Your task to perform on an android device: turn on javascript in the chrome app Image 0: 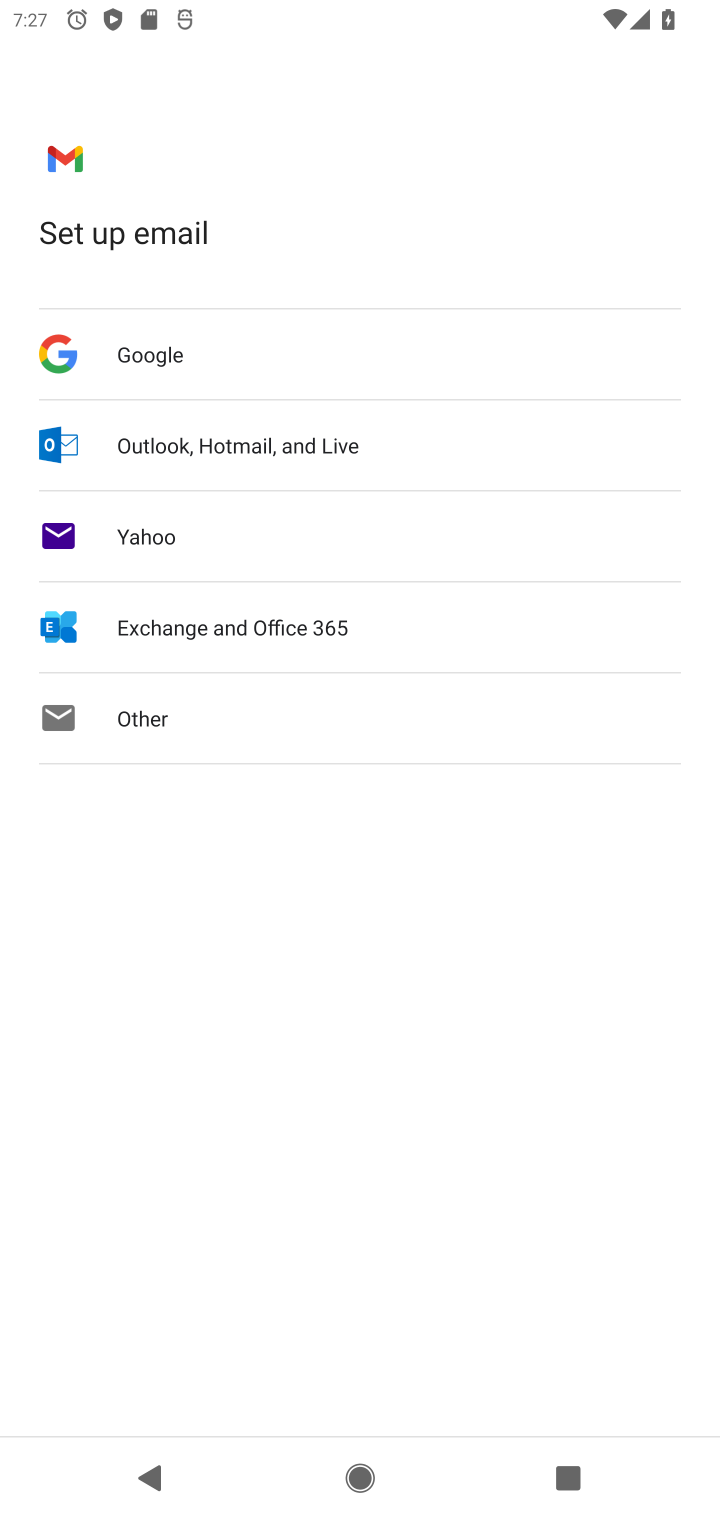
Step 0: press home button
Your task to perform on an android device: turn on javascript in the chrome app Image 1: 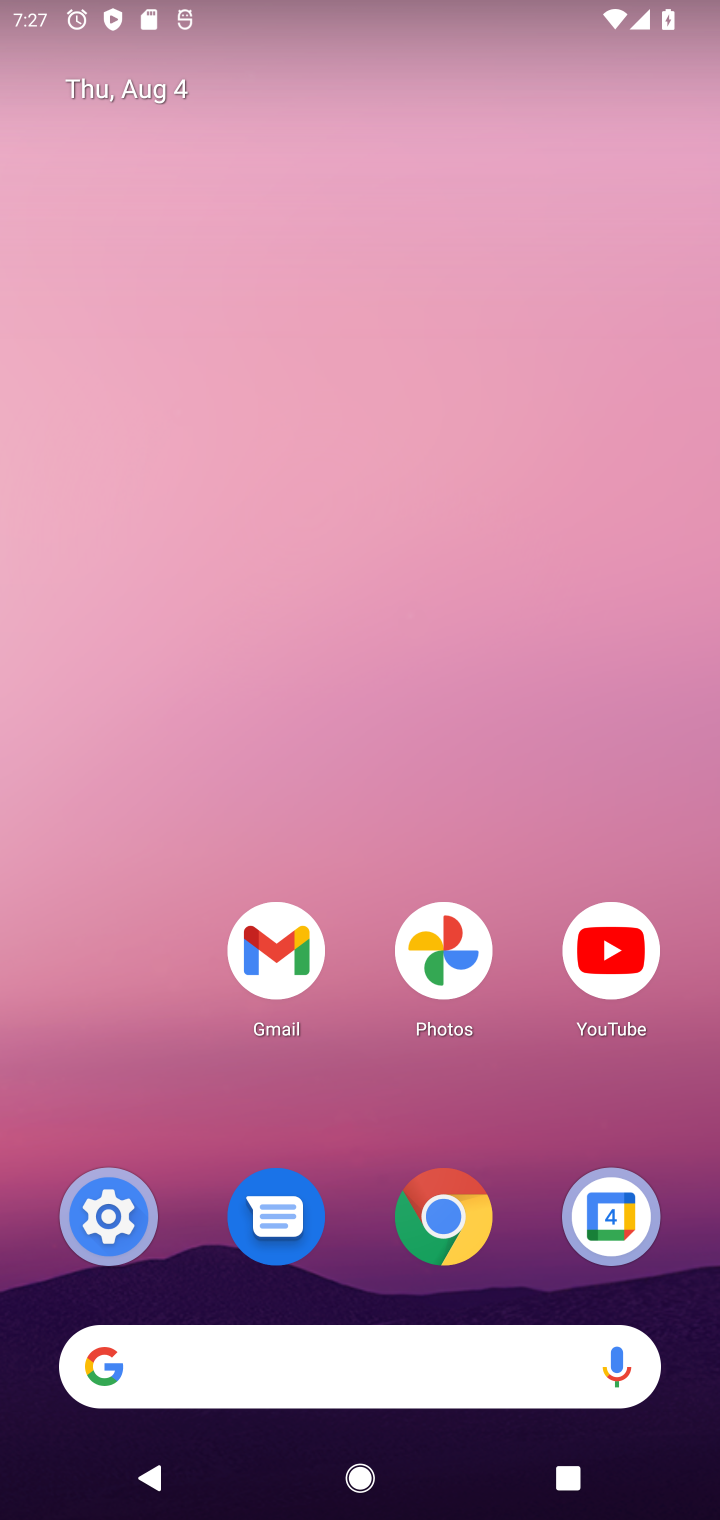
Step 1: click (459, 1205)
Your task to perform on an android device: turn on javascript in the chrome app Image 2: 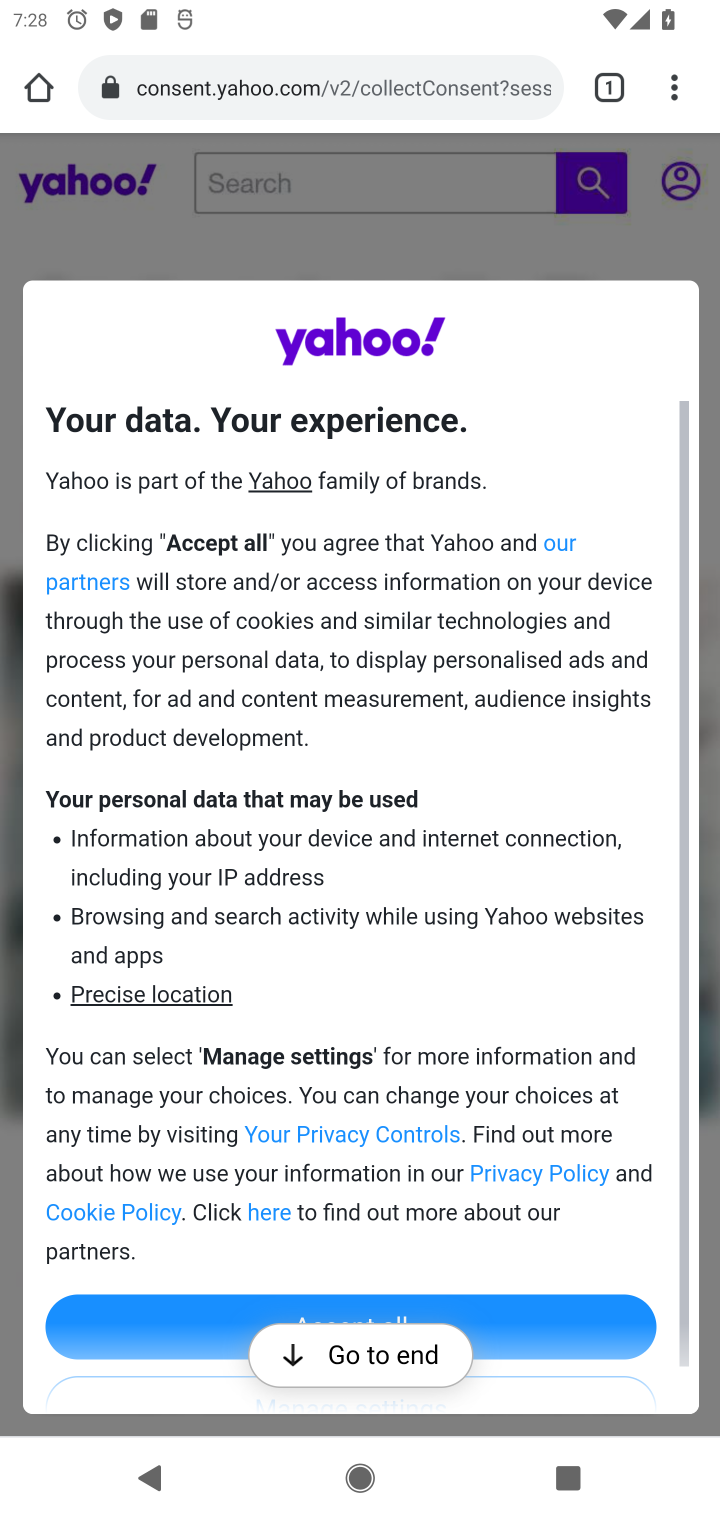
Step 2: press home button
Your task to perform on an android device: turn on javascript in the chrome app Image 3: 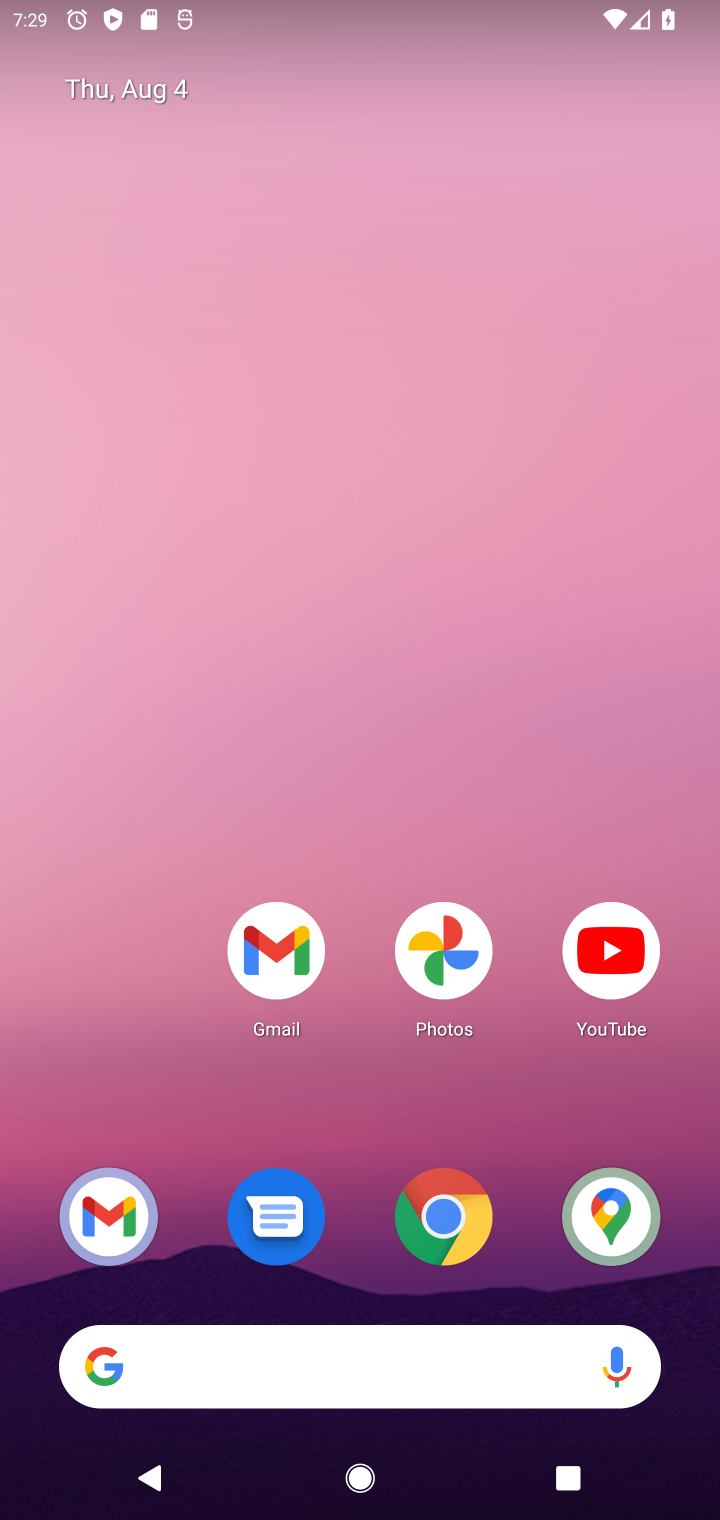
Step 3: click (449, 1205)
Your task to perform on an android device: turn on javascript in the chrome app Image 4: 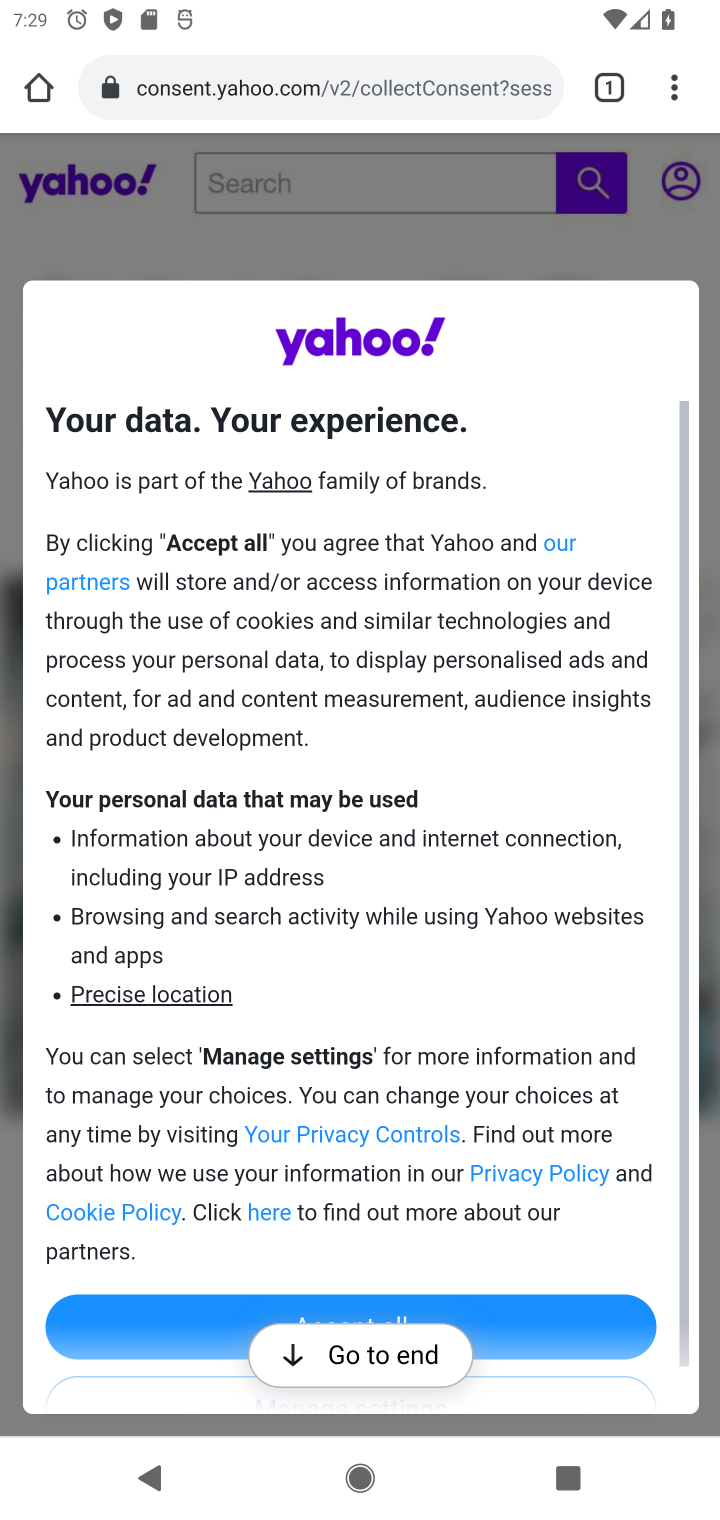
Step 4: press home button
Your task to perform on an android device: turn on javascript in the chrome app Image 5: 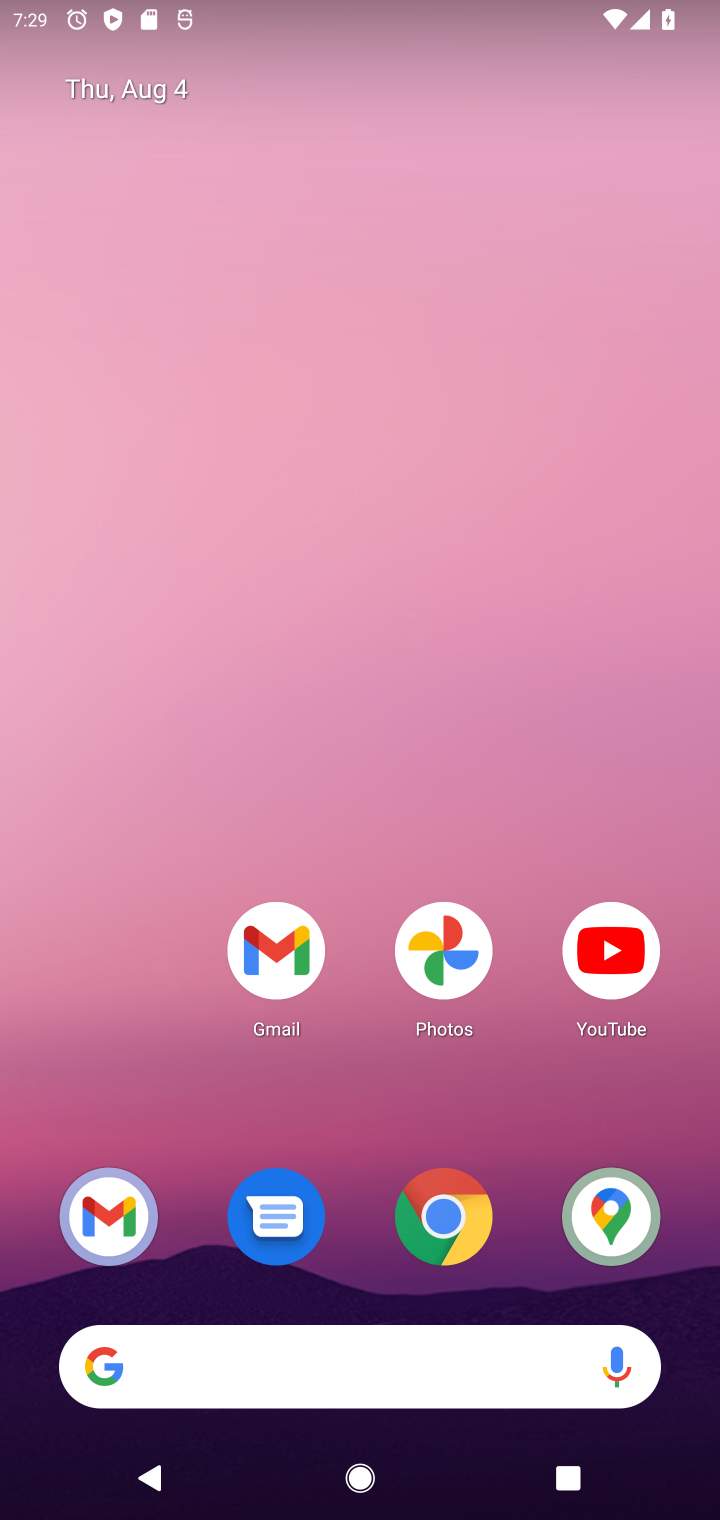
Step 5: click (475, 1273)
Your task to perform on an android device: turn on javascript in the chrome app Image 6: 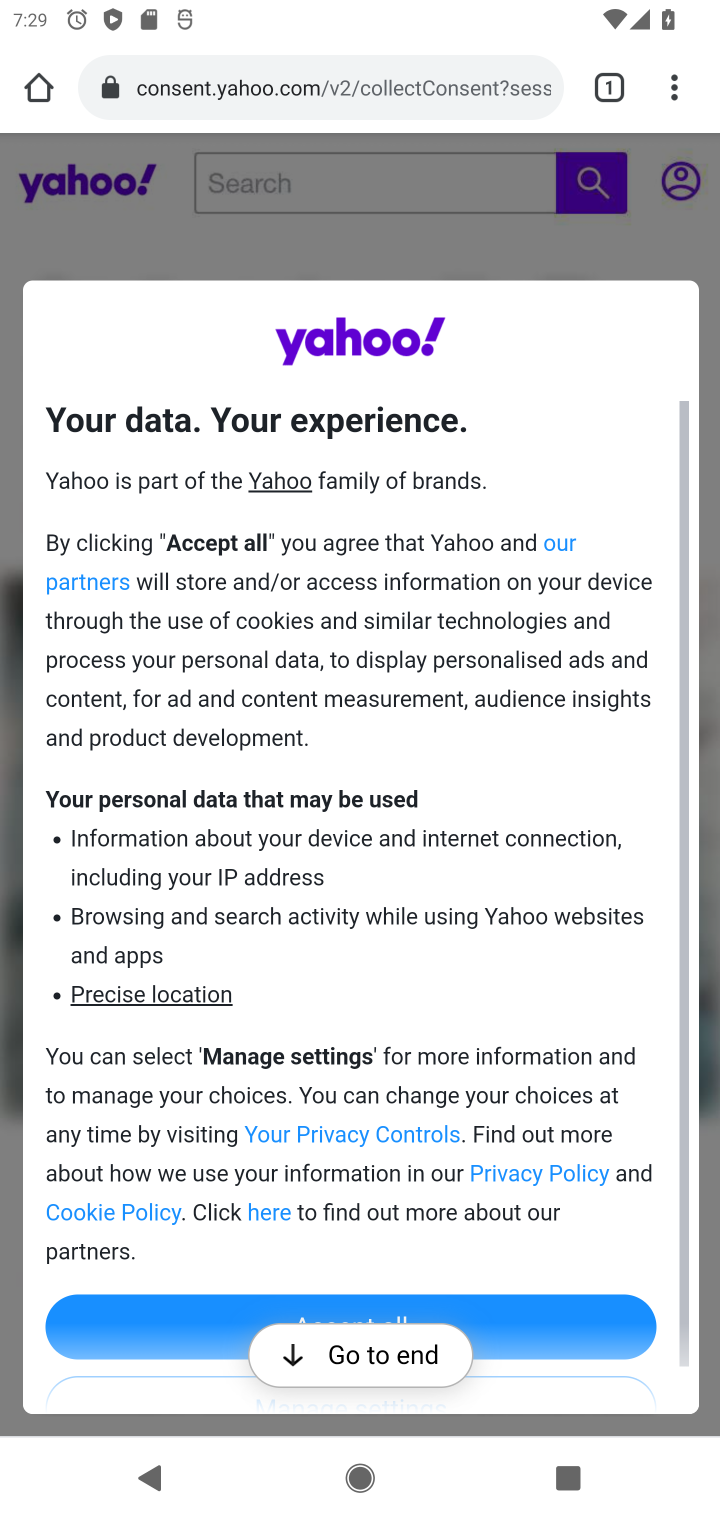
Step 6: click (670, 75)
Your task to perform on an android device: turn on javascript in the chrome app Image 7: 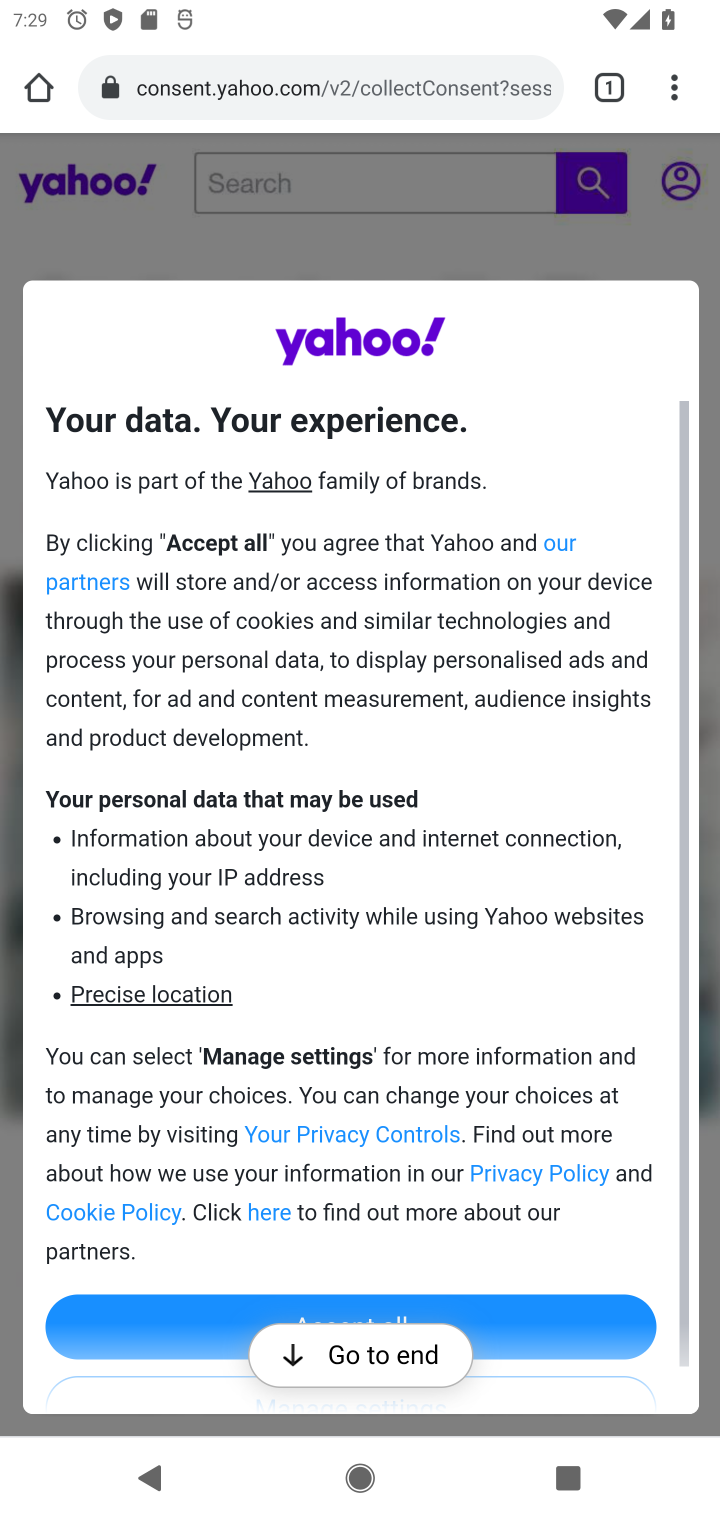
Step 7: click (682, 86)
Your task to perform on an android device: turn on javascript in the chrome app Image 8: 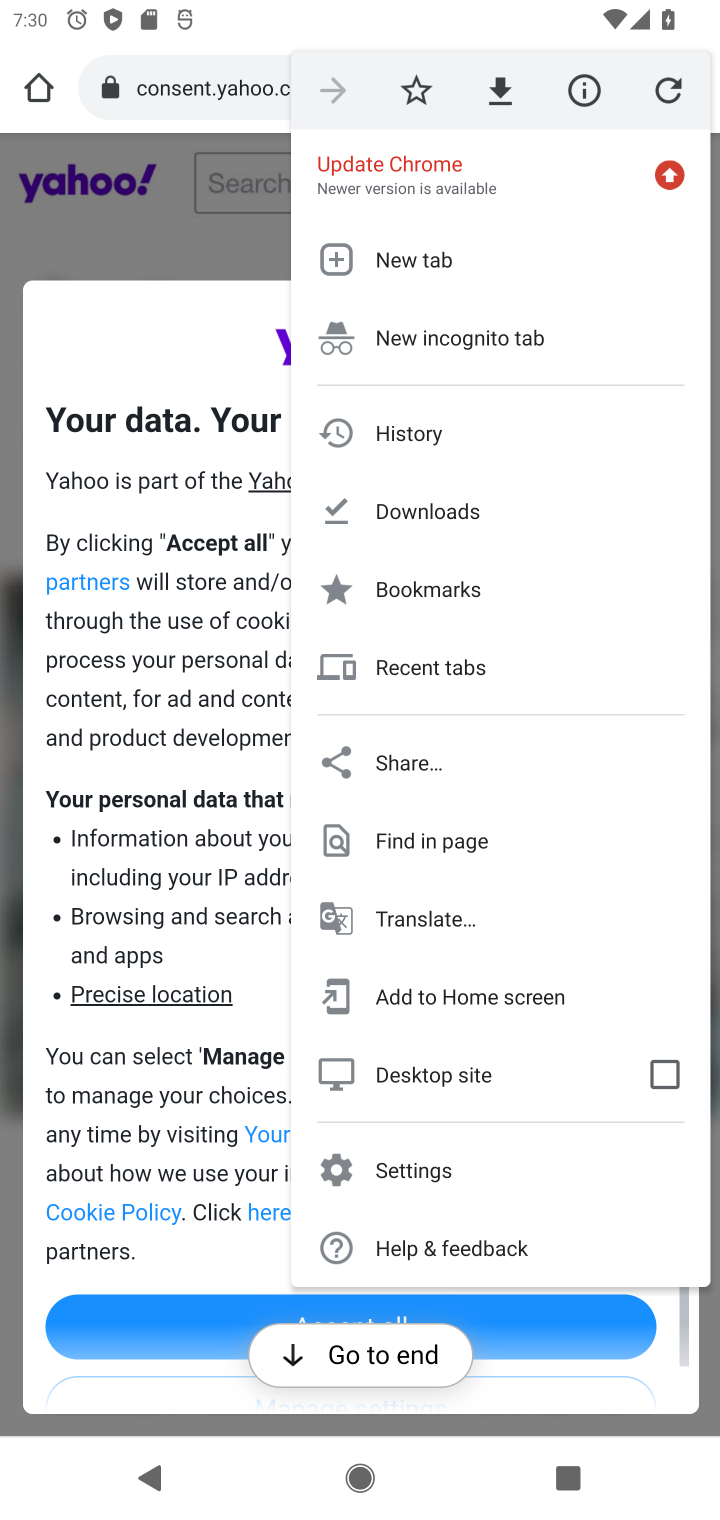
Step 8: click (463, 1158)
Your task to perform on an android device: turn on javascript in the chrome app Image 9: 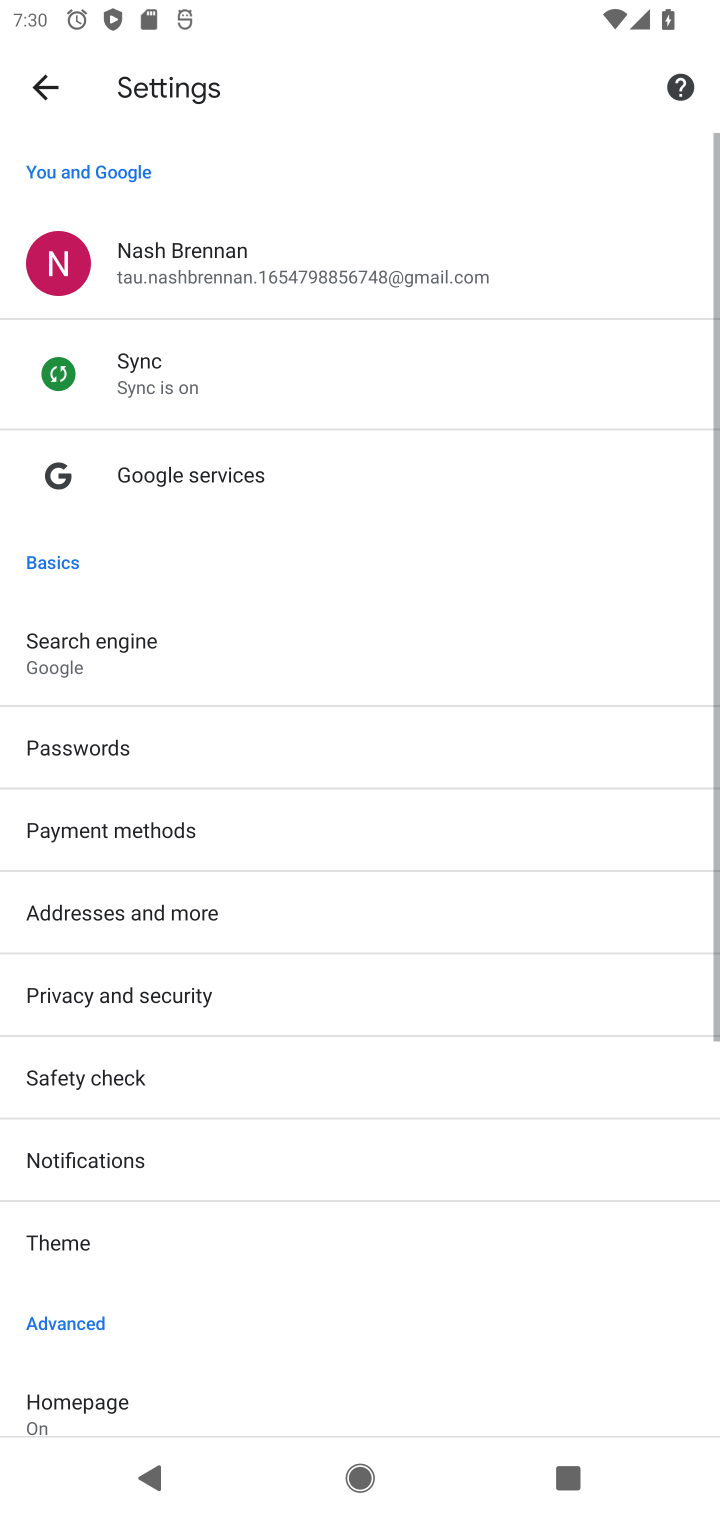
Step 9: drag from (363, 628) to (440, 463)
Your task to perform on an android device: turn on javascript in the chrome app Image 10: 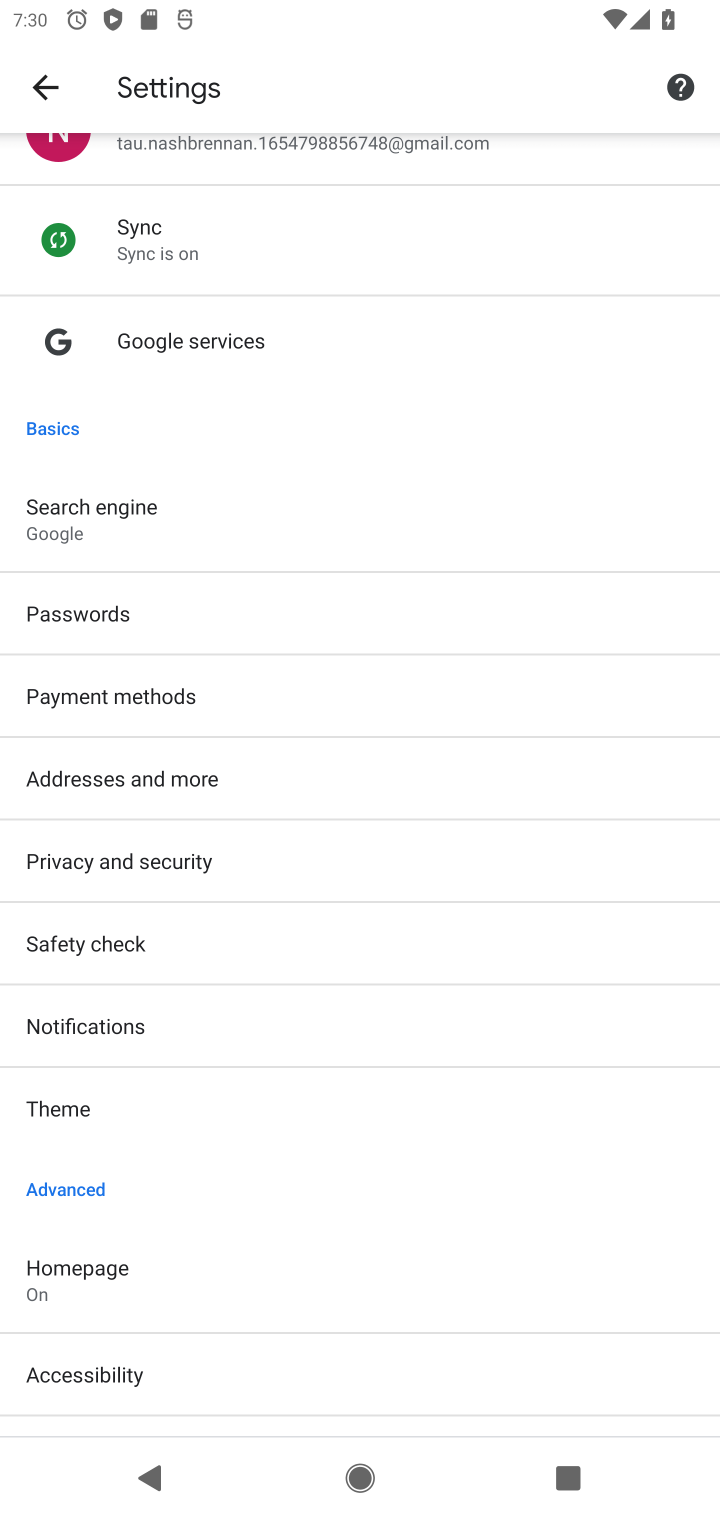
Step 10: drag from (424, 1109) to (374, 534)
Your task to perform on an android device: turn on javascript in the chrome app Image 11: 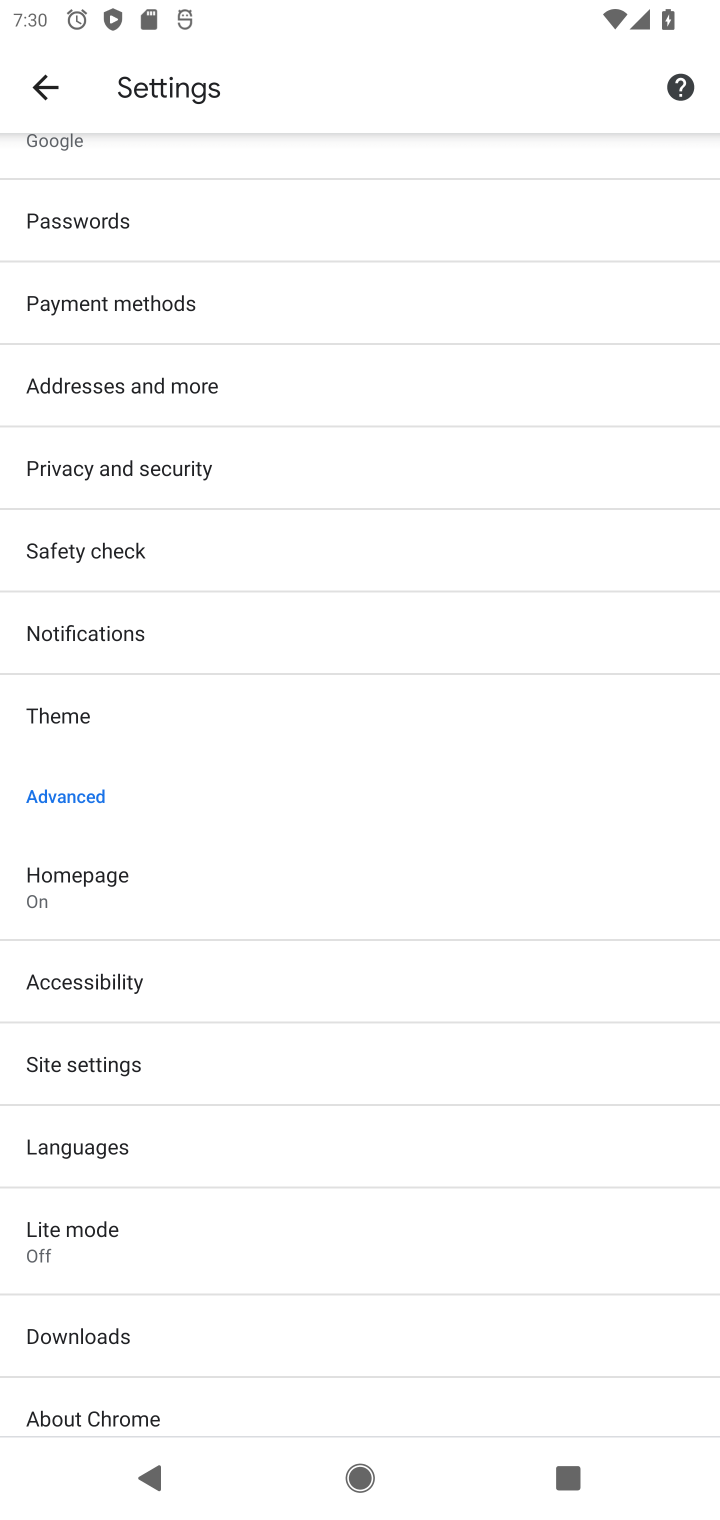
Step 11: click (88, 1048)
Your task to perform on an android device: turn on javascript in the chrome app Image 12: 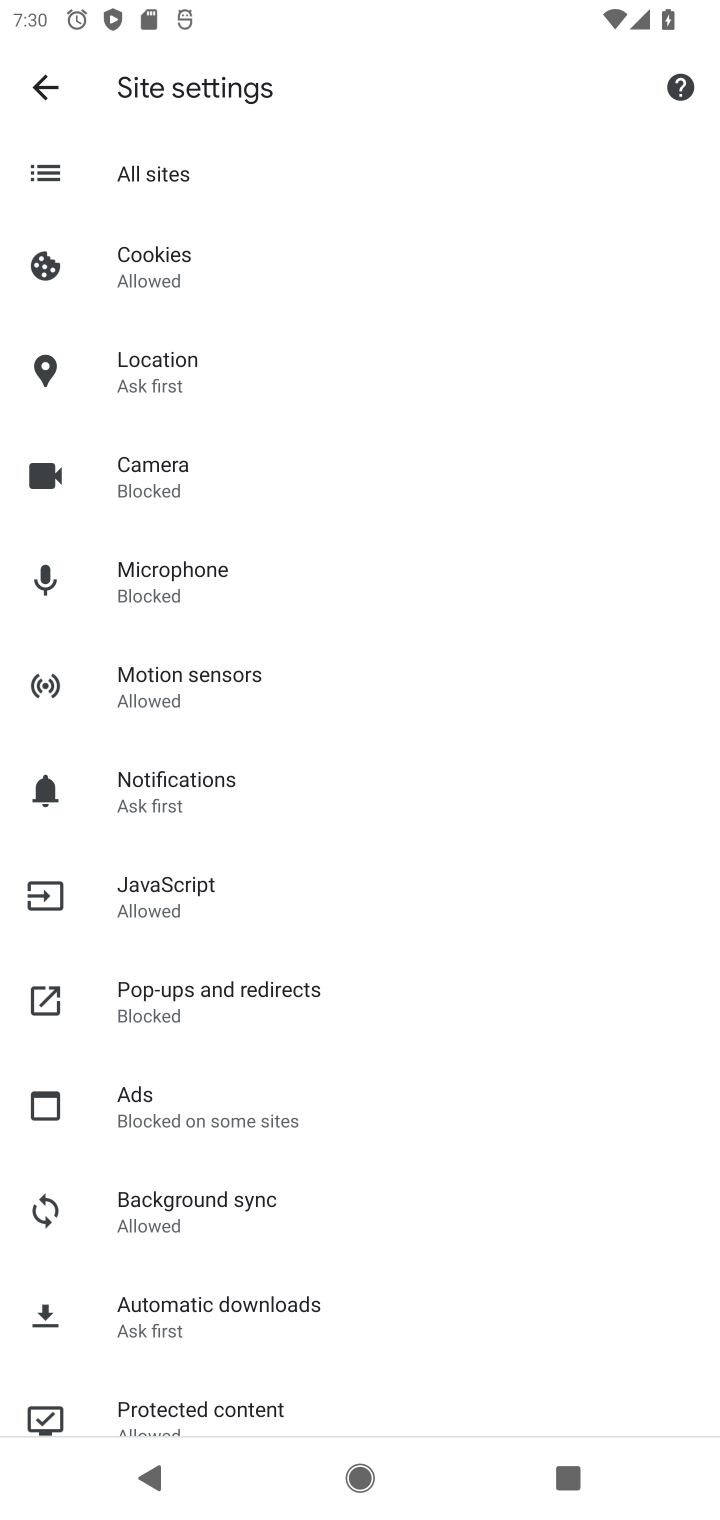
Step 12: click (229, 897)
Your task to perform on an android device: turn on javascript in the chrome app Image 13: 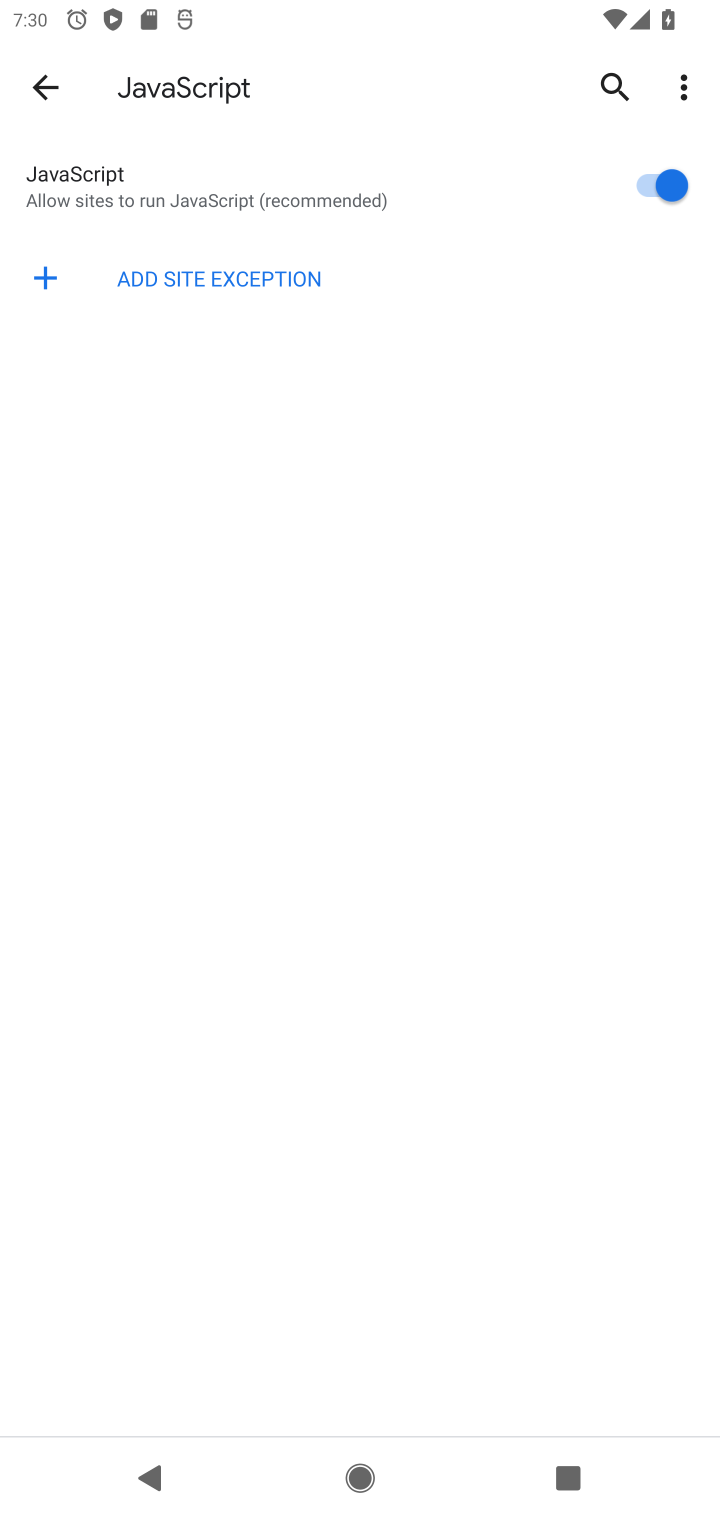
Step 13: task complete